Your task to perform on an android device: change the upload size in google photos Image 0: 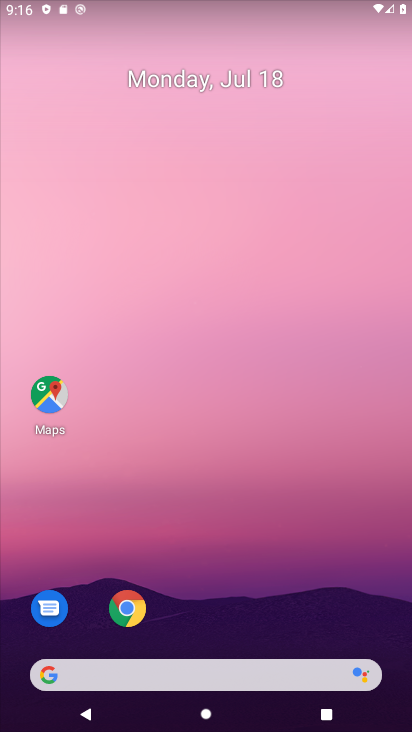
Step 0: drag from (259, 630) to (182, 20)
Your task to perform on an android device: change the upload size in google photos Image 1: 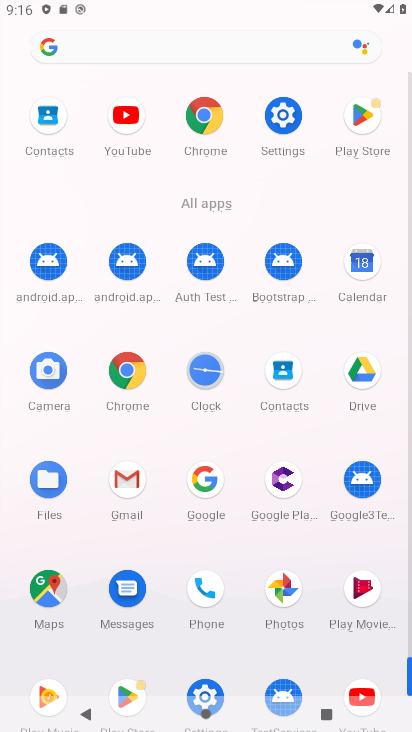
Step 1: click (287, 585)
Your task to perform on an android device: change the upload size in google photos Image 2: 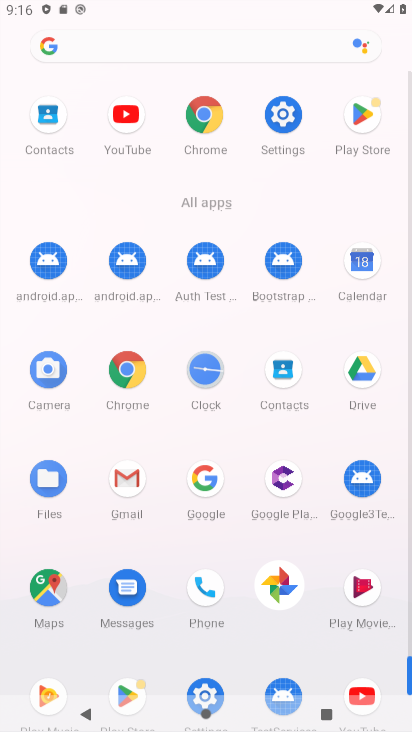
Step 2: click (285, 586)
Your task to perform on an android device: change the upload size in google photos Image 3: 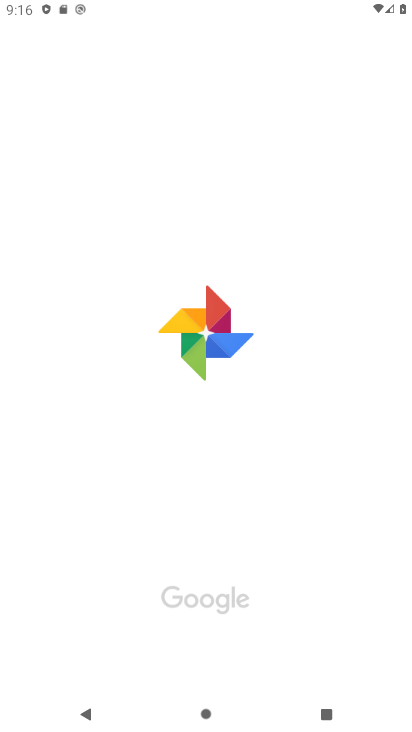
Step 3: click (288, 585)
Your task to perform on an android device: change the upload size in google photos Image 4: 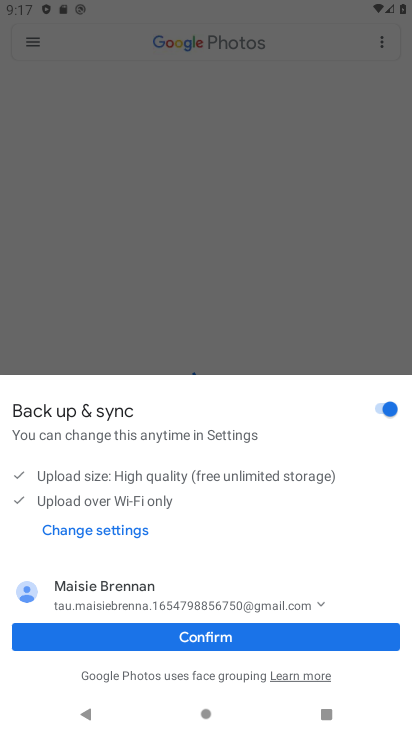
Step 4: click (172, 160)
Your task to perform on an android device: change the upload size in google photos Image 5: 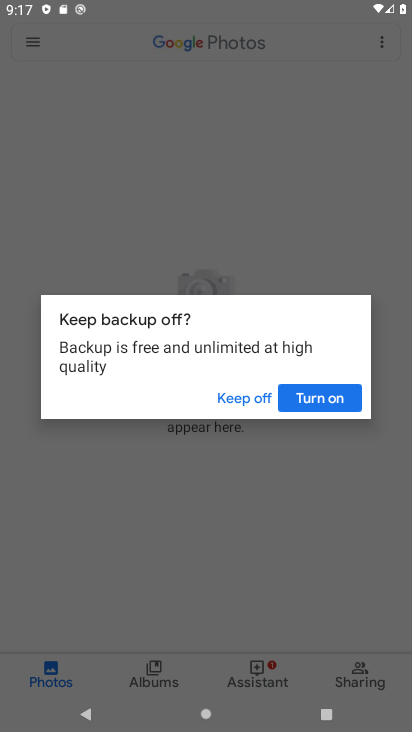
Step 5: click (326, 403)
Your task to perform on an android device: change the upload size in google photos Image 6: 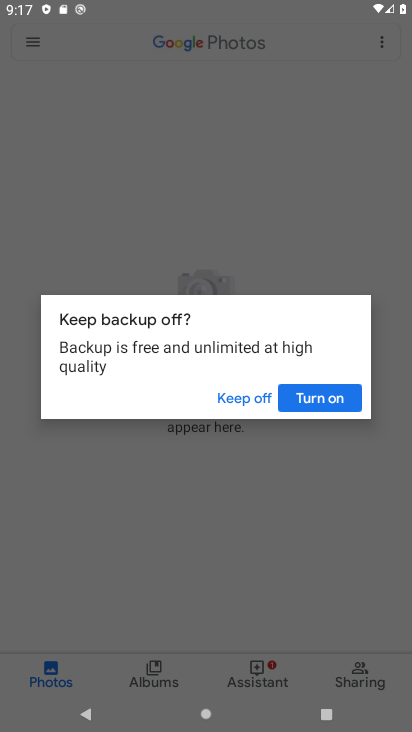
Step 6: click (327, 404)
Your task to perform on an android device: change the upload size in google photos Image 7: 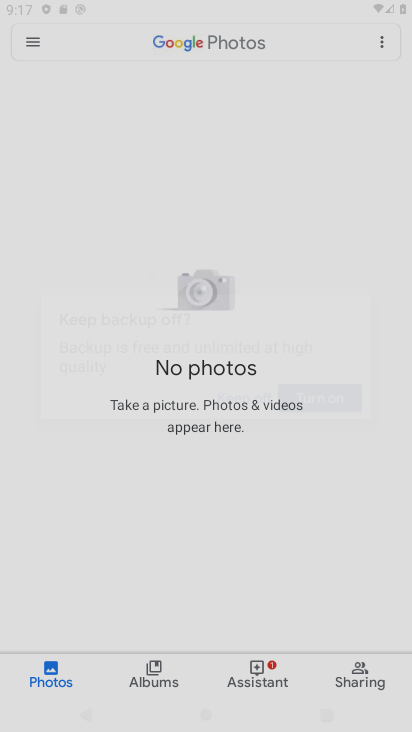
Step 7: click (328, 405)
Your task to perform on an android device: change the upload size in google photos Image 8: 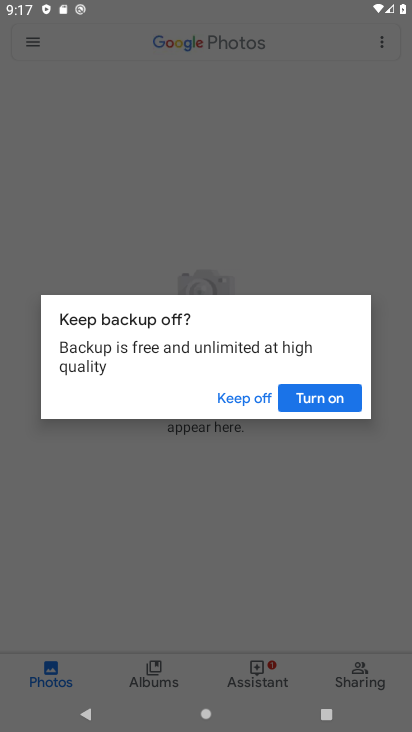
Step 8: click (305, 395)
Your task to perform on an android device: change the upload size in google photos Image 9: 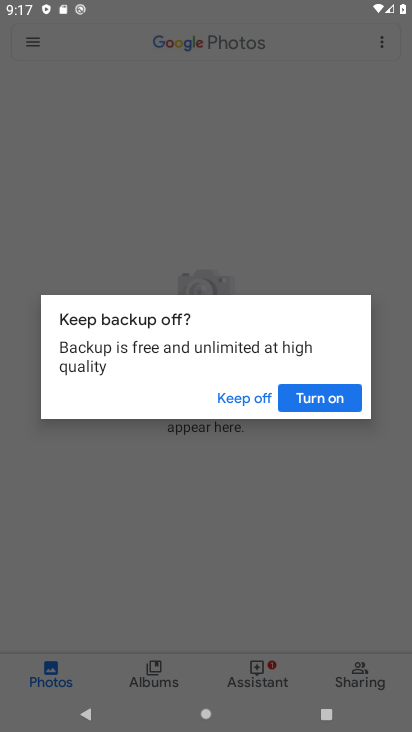
Step 9: click (304, 396)
Your task to perform on an android device: change the upload size in google photos Image 10: 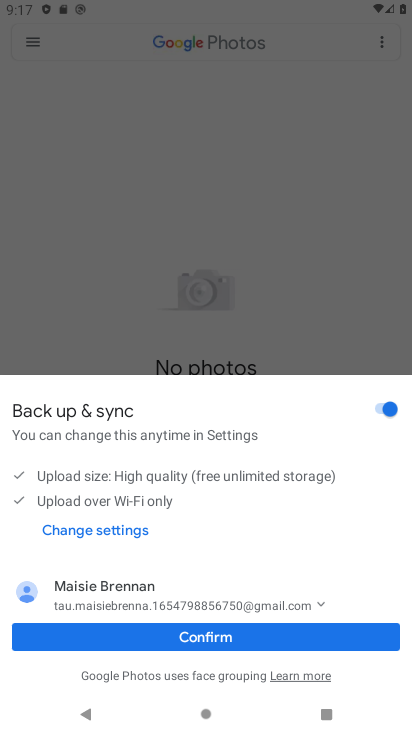
Step 10: click (251, 622)
Your task to perform on an android device: change the upload size in google photos Image 11: 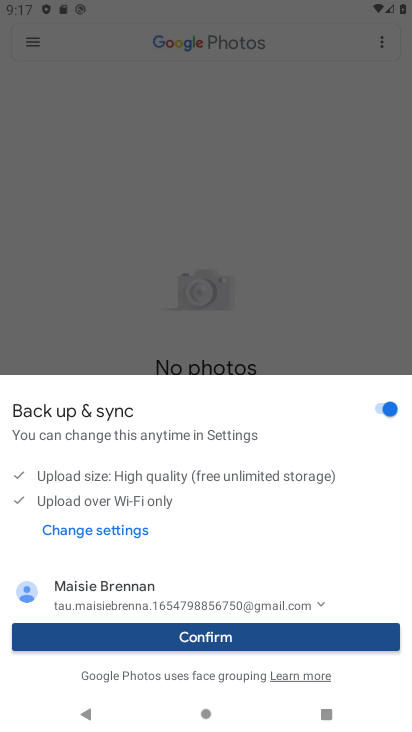
Step 11: click (251, 623)
Your task to perform on an android device: change the upload size in google photos Image 12: 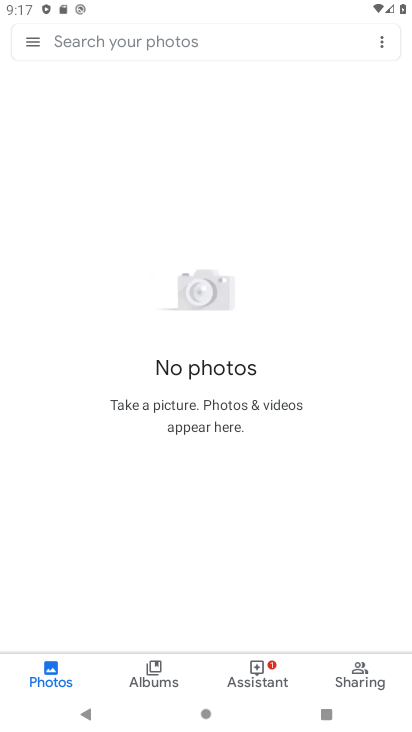
Step 12: click (36, 41)
Your task to perform on an android device: change the upload size in google photos Image 13: 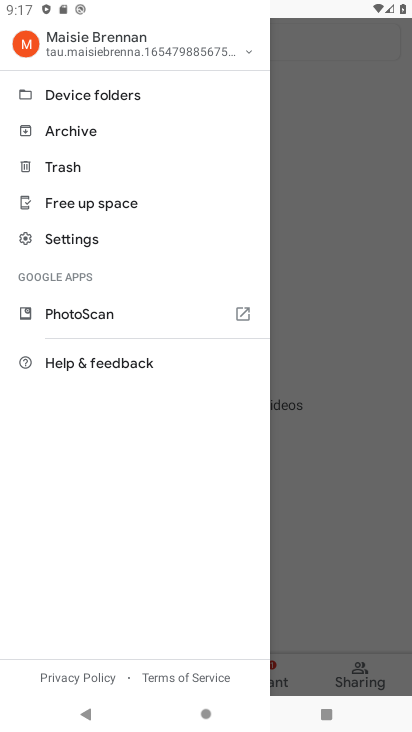
Step 13: click (70, 243)
Your task to perform on an android device: change the upload size in google photos Image 14: 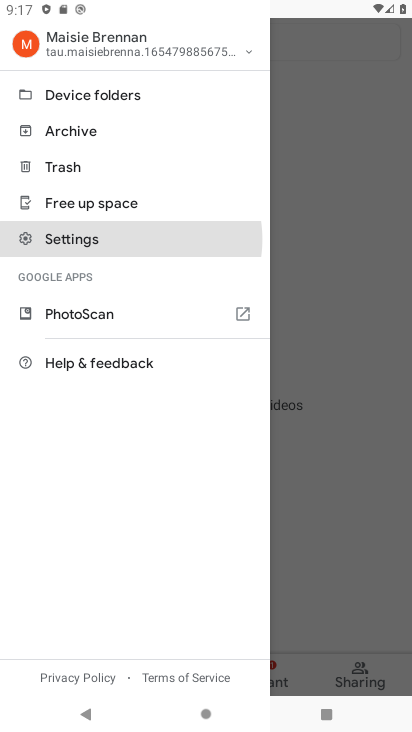
Step 14: click (70, 243)
Your task to perform on an android device: change the upload size in google photos Image 15: 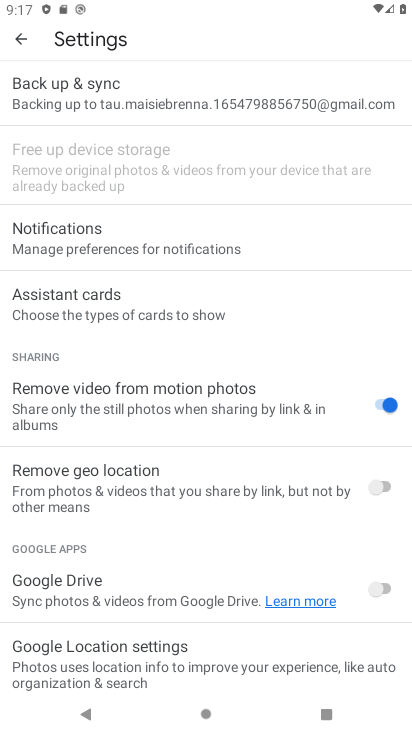
Step 15: click (78, 95)
Your task to perform on an android device: change the upload size in google photos Image 16: 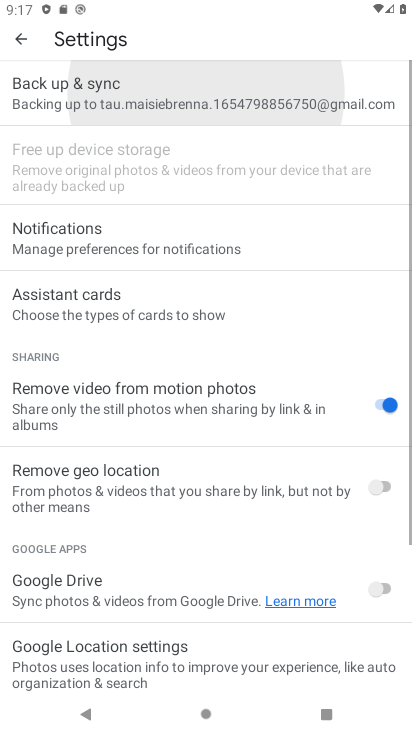
Step 16: click (81, 98)
Your task to perform on an android device: change the upload size in google photos Image 17: 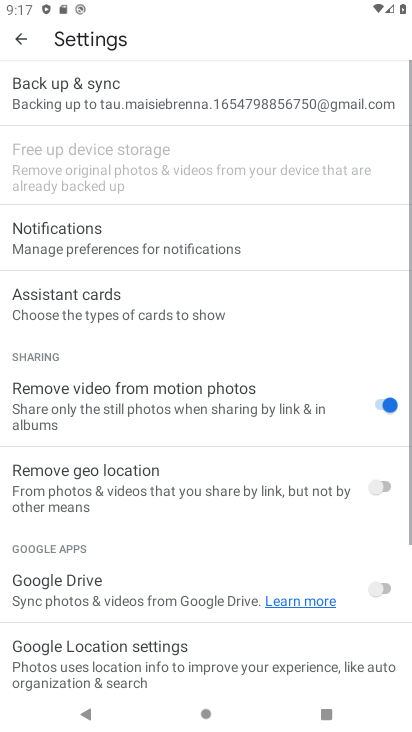
Step 17: click (84, 99)
Your task to perform on an android device: change the upload size in google photos Image 18: 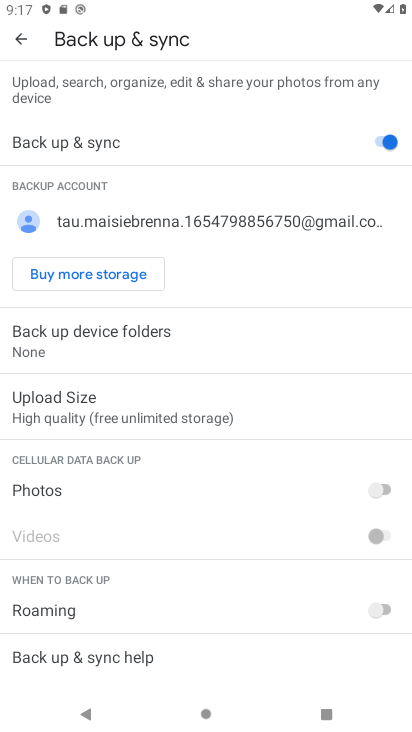
Step 18: click (85, 98)
Your task to perform on an android device: change the upload size in google photos Image 19: 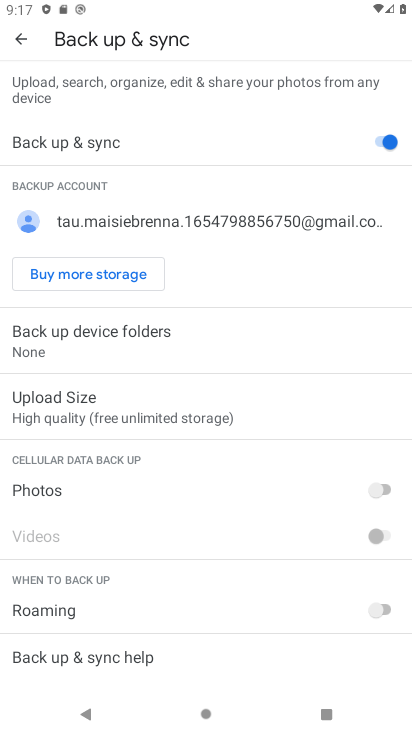
Step 19: click (109, 406)
Your task to perform on an android device: change the upload size in google photos Image 20: 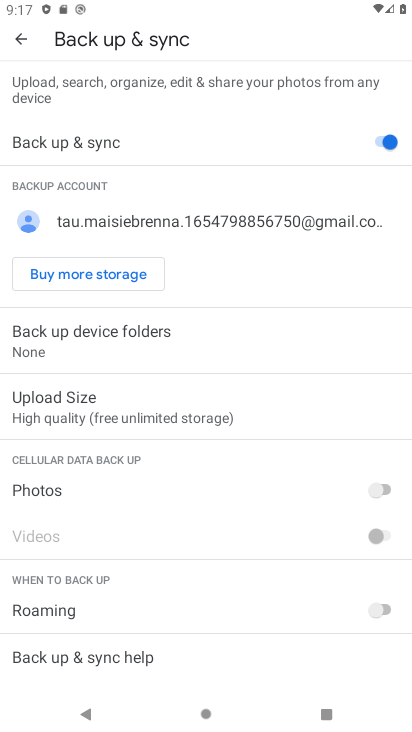
Step 20: click (116, 397)
Your task to perform on an android device: change the upload size in google photos Image 21: 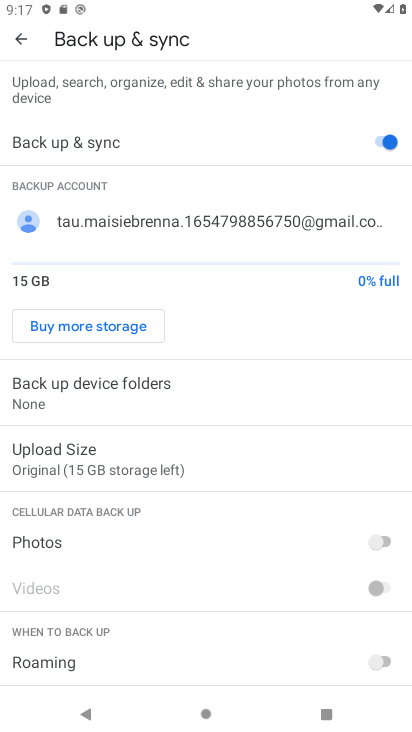
Step 21: task complete